Your task to perform on an android device: Go to accessibility settings Image 0: 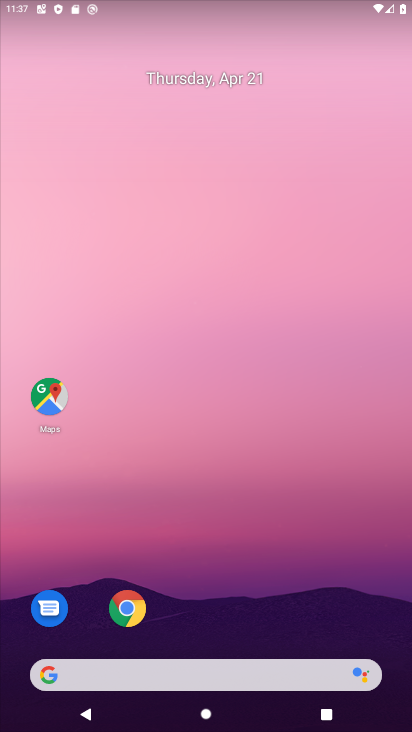
Step 0: drag from (253, 642) to (140, 92)
Your task to perform on an android device: Go to accessibility settings Image 1: 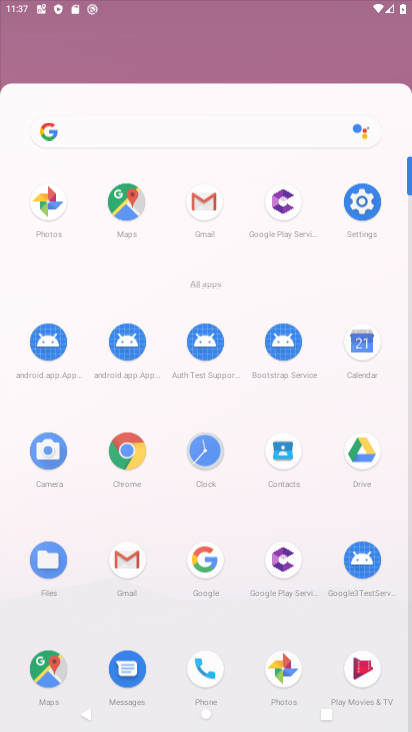
Step 1: drag from (151, 326) to (102, 78)
Your task to perform on an android device: Go to accessibility settings Image 2: 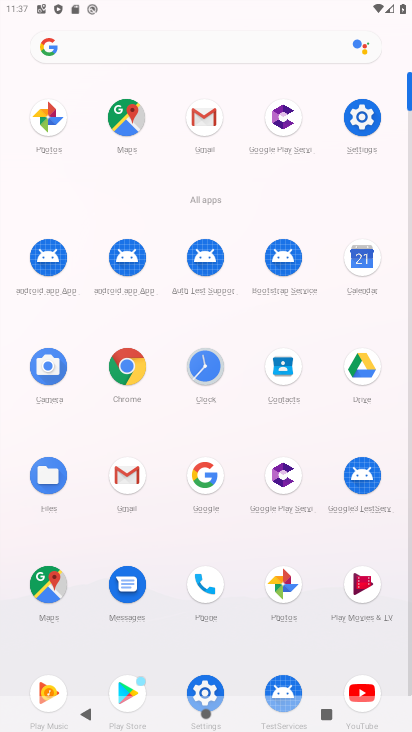
Step 2: click (370, 105)
Your task to perform on an android device: Go to accessibility settings Image 3: 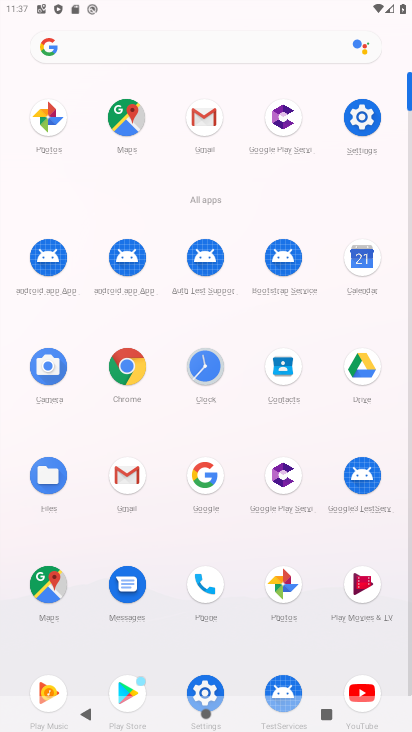
Step 3: click (364, 115)
Your task to perform on an android device: Go to accessibility settings Image 4: 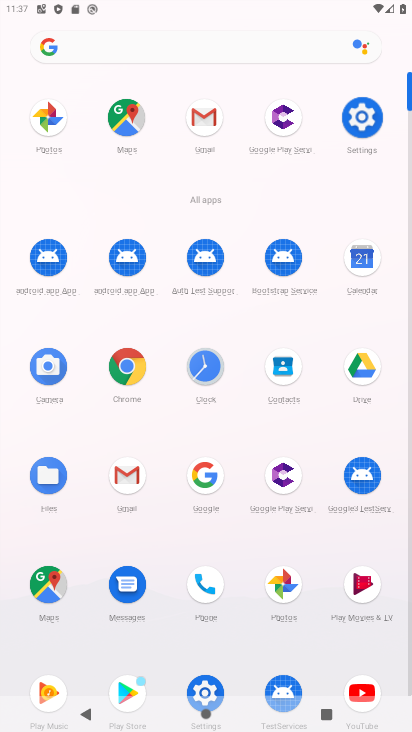
Step 4: click (364, 115)
Your task to perform on an android device: Go to accessibility settings Image 5: 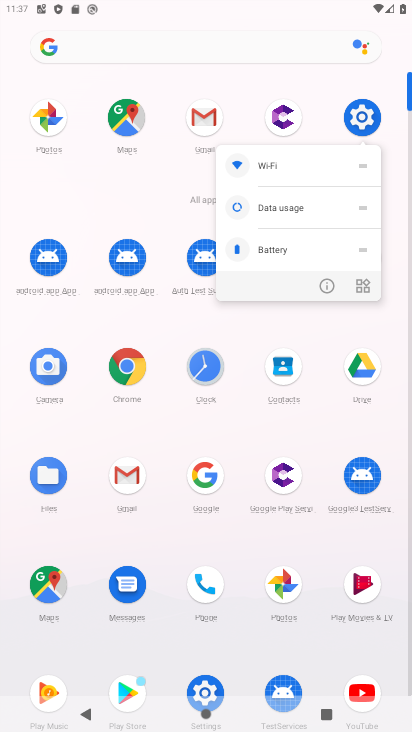
Step 5: click (365, 111)
Your task to perform on an android device: Go to accessibility settings Image 6: 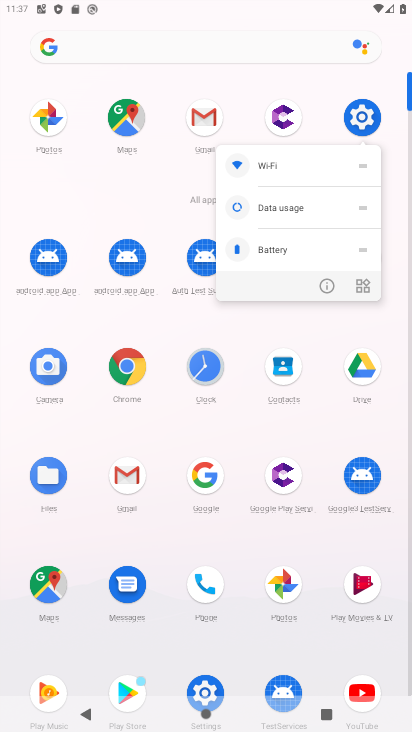
Step 6: click (365, 124)
Your task to perform on an android device: Go to accessibility settings Image 7: 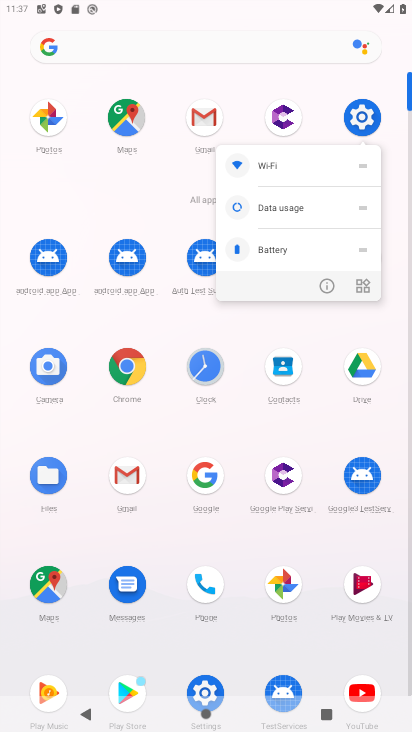
Step 7: click (365, 125)
Your task to perform on an android device: Go to accessibility settings Image 8: 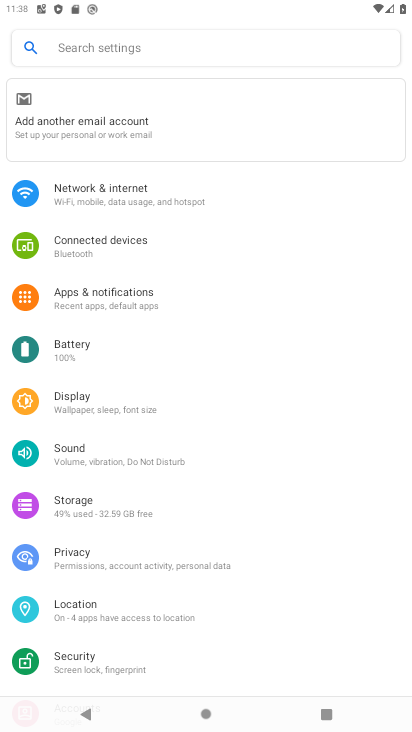
Step 8: drag from (76, 525) to (8, 206)
Your task to perform on an android device: Go to accessibility settings Image 9: 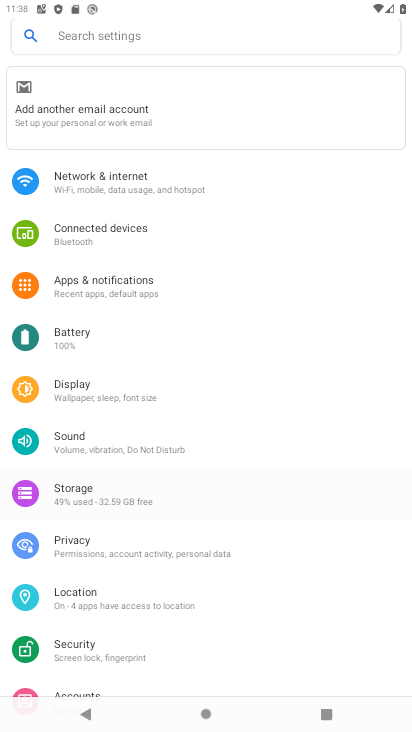
Step 9: drag from (128, 423) to (147, 152)
Your task to perform on an android device: Go to accessibility settings Image 10: 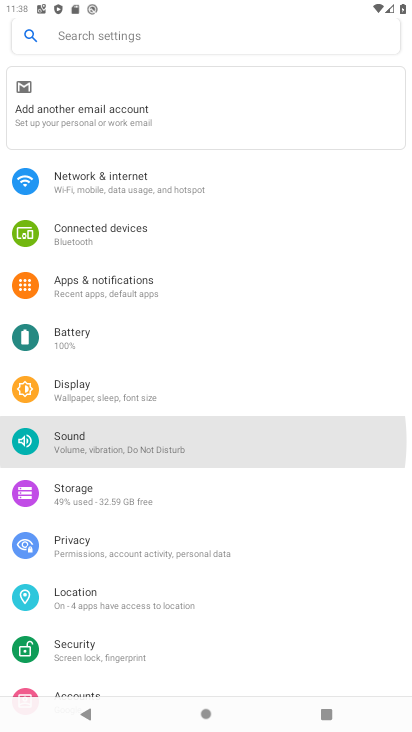
Step 10: drag from (156, 520) to (142, 204)
Your task to perform on an android device: Go to accessibility settings Image 11: 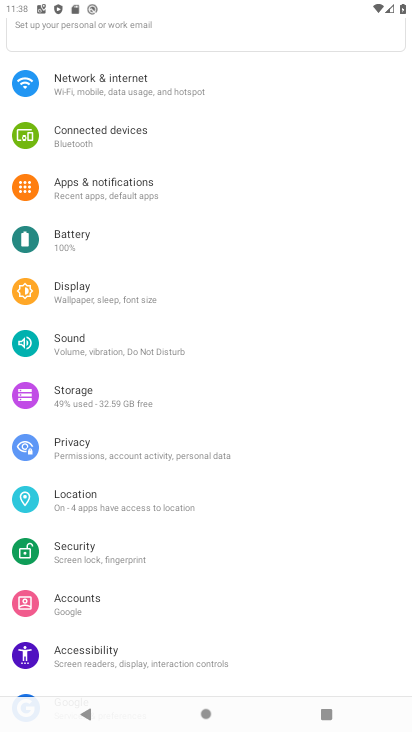
Step 11: drag from (131, 581) to (175, 171)
Your task to perform on an android device: Go to accessibility settings Image 12: 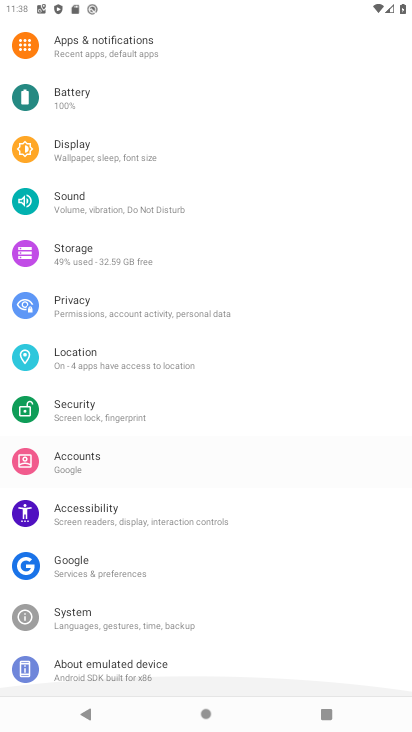
Step 12: drag from (123, 407) to (145, 127)
Your task to perform on an android device: Go to accessibility settings Image 13: 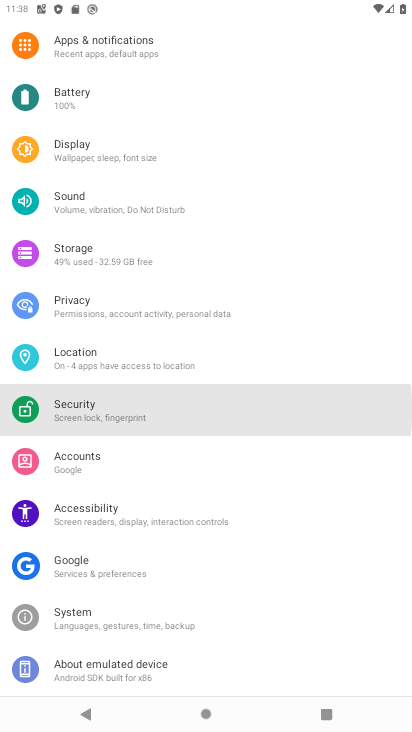
Step 13: drag from (123, 567) to (105, 33)
Your task to perform on an android device: Go to accessibility settings Image 14: 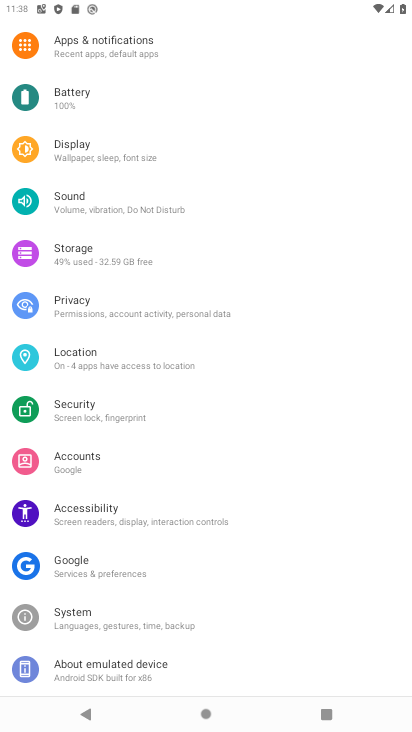
Step 14: click (90, 508)
Your task to perform on an android device: Go to accessibility settings Image 15: 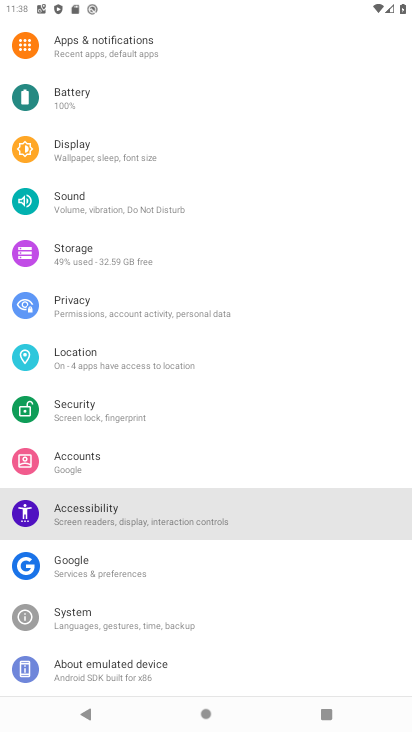
Step 15: click (85, 510)
Your task to perform on an android device: Go to accessibility settings Image 16: 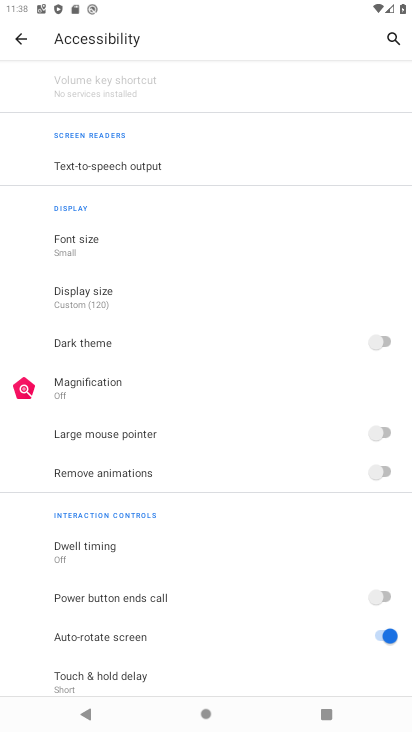
Step 16: task complete